Your task to perform on an android device: Turn off the flashlight Image 0: 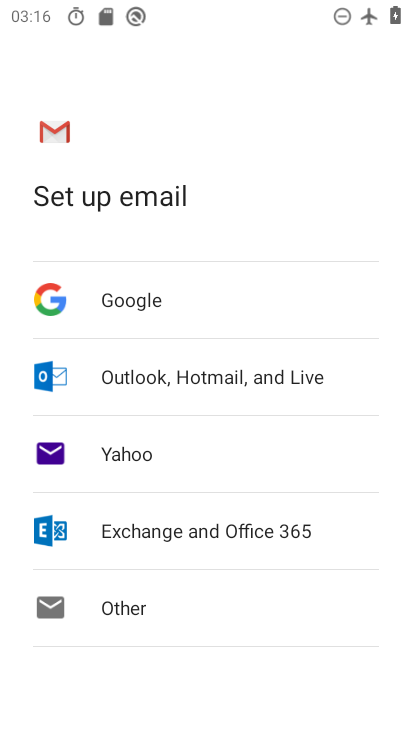
Step 0: press home button
Your task to perform on an android device: Turn off the flashlight Image 1: 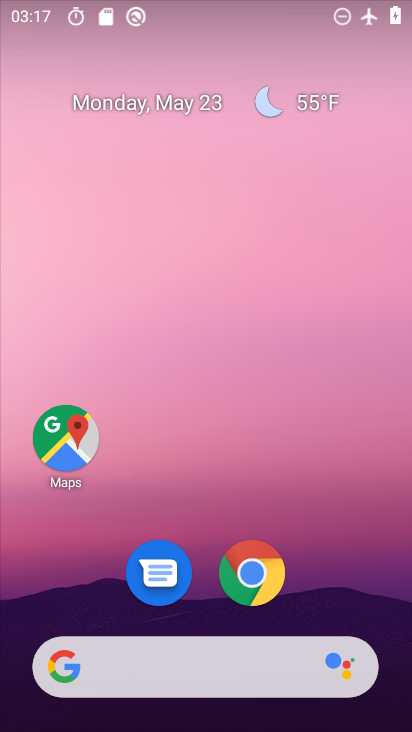
Step 1: drag from (340, 597) to (299, 61)
Your task to perform on an android device: Turn off the flashlight Image 2: 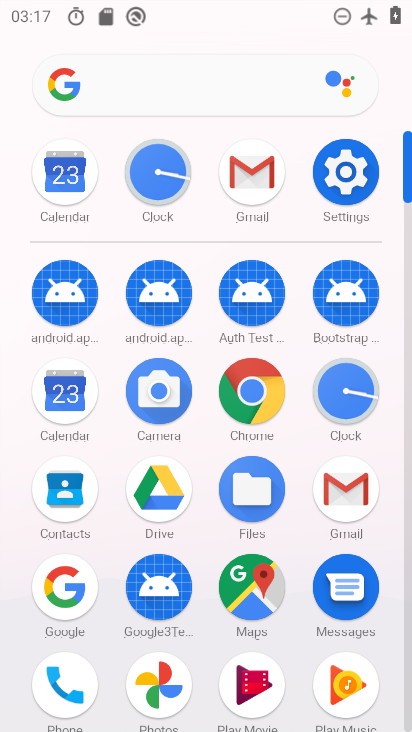
Step 2: click (341, 186)
Your task to perform on an android device: Turn off the flashlight Image 3: 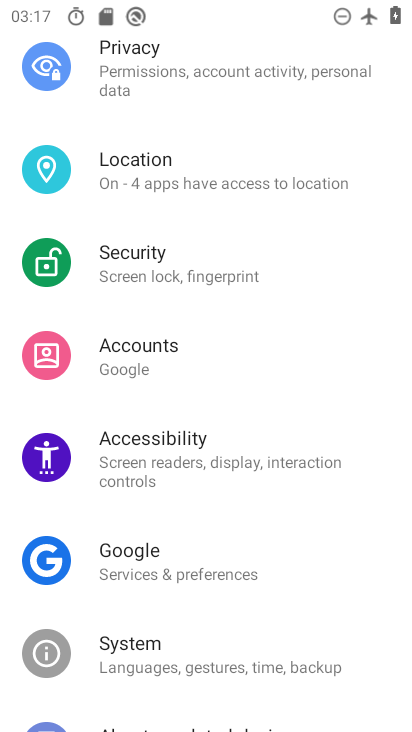
Step 3: drag from (253, 237) to (229, 515)
Your task to perform on an android device: Turn off the flashlight Image 4: 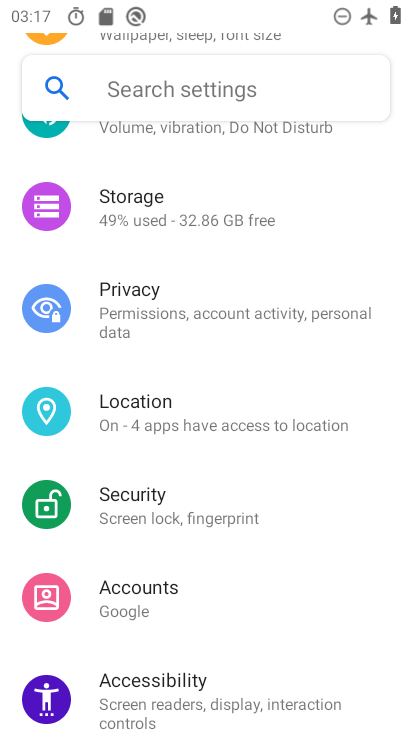
Step 4: drag from (257, 181) to (235, 468)
Your task to perform on an android device: Turn off the flashlight Image 5: 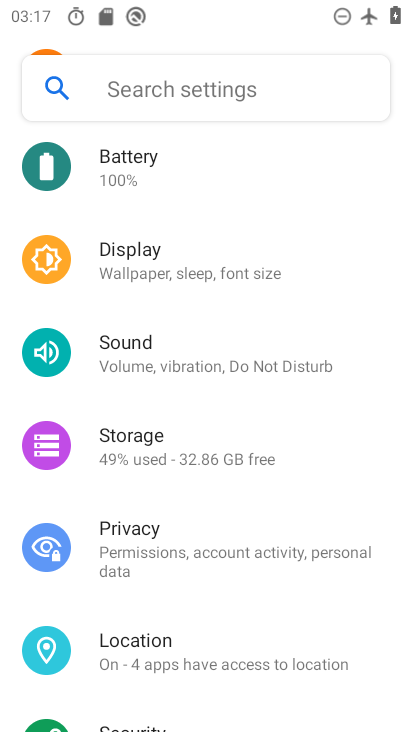
Step 5: drag from (271, 226) to (255, 489)
Your task to perform on an android device: Turn off the flashlight Image 6: 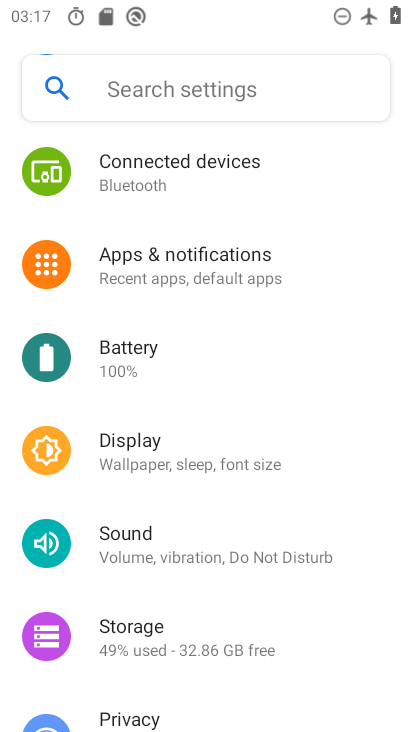
Step 6: click (222, 266)
Your task to perform on an android device: Turn off the flashlight Image 7: 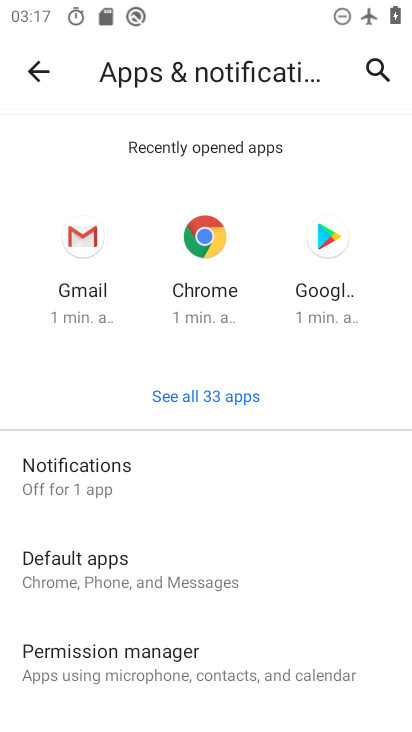
Step 7: drag from (214, 615) to (203, 260)
Your task to perform on an android device: Turn off the flashlight Image 8: 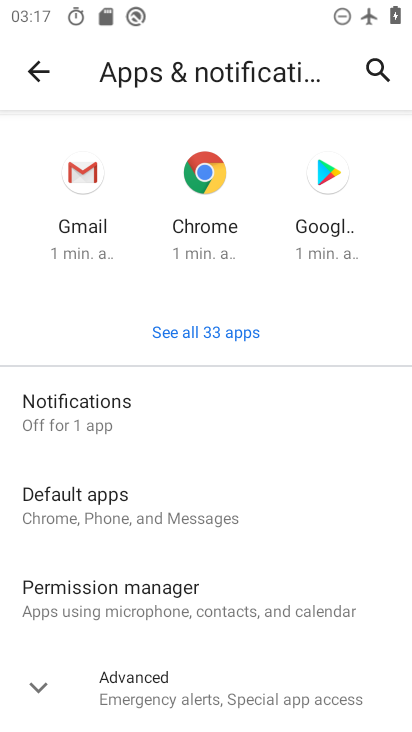
Step 8: click (215, 704)
Your task to perform on an android device: Turn off the flashlight Image 9: 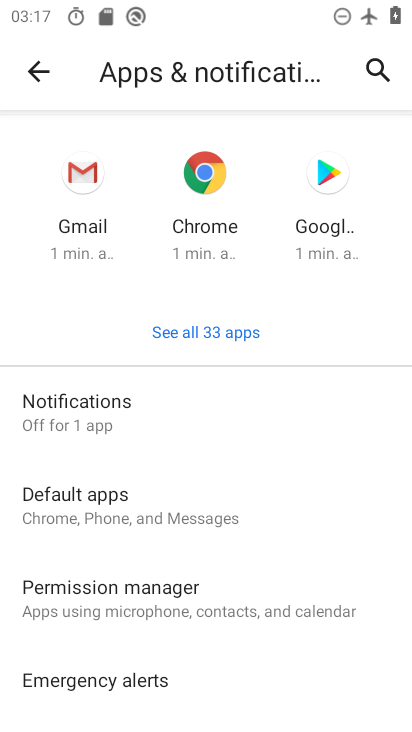
Step 9: task complete